Your task to perform on an android device: turn off data saver in the chrome app Image 0: 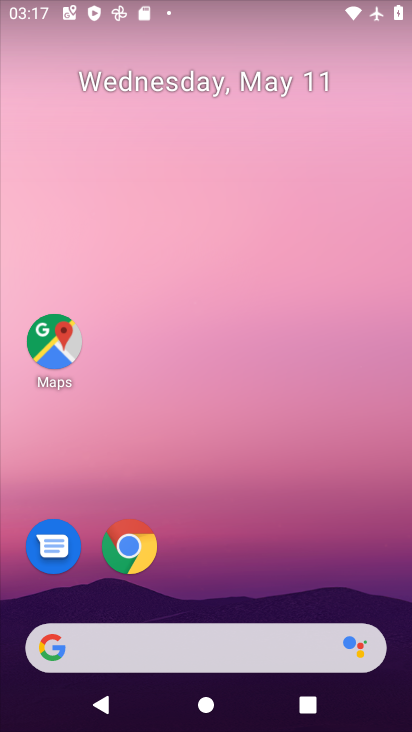
Step 0: drag from (164, 564) to (224, 116)
Your task to perform on an android device: turn off data saver in the chrome app Image 1: 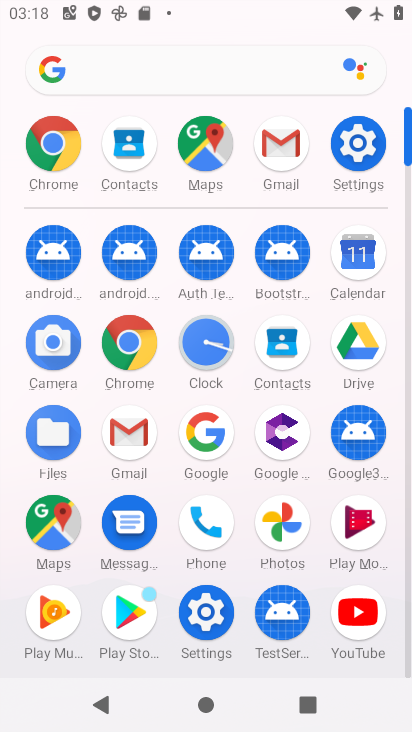
Step 1: click (125, 343)
Your task to perform on an android device: turn off data saver in the chrome app Image 2: 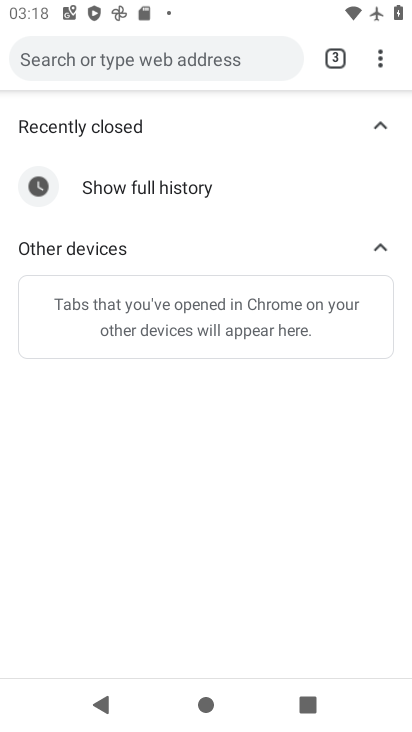
Step 2: click (308, 260)
Your task to perform on an android device: turn off data saver in the chrome app Image 3: 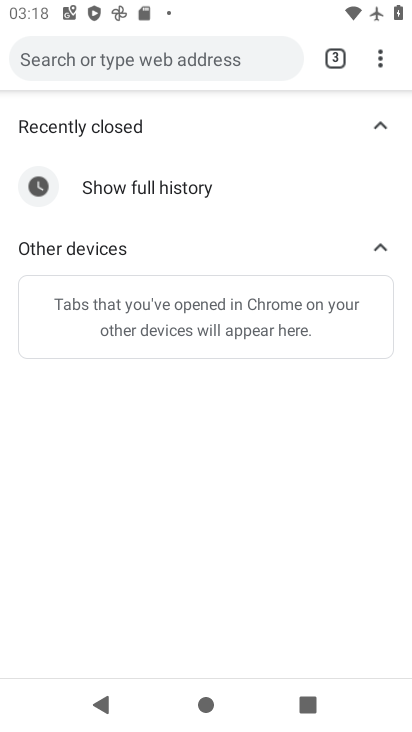
Step 3: drag from (386, 57) to (231, 503)
Your task to perform on an android device: turn off data saver in the chrome app Image 4: 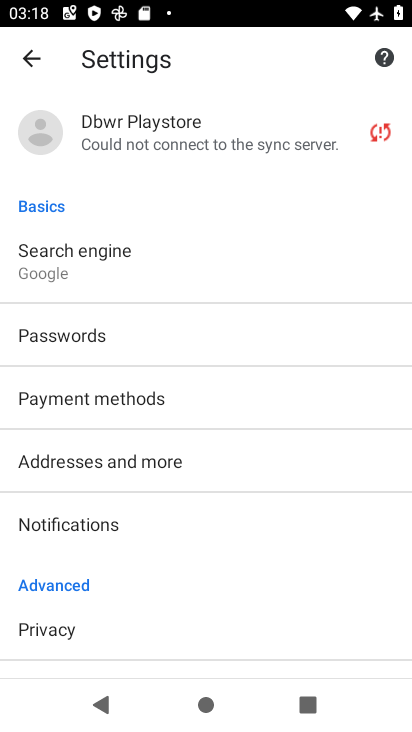
Step 4: drag from (197, 658) to (268, 365)
Your task to perform on an android device: turn off data saver in the chrome app Image 5: 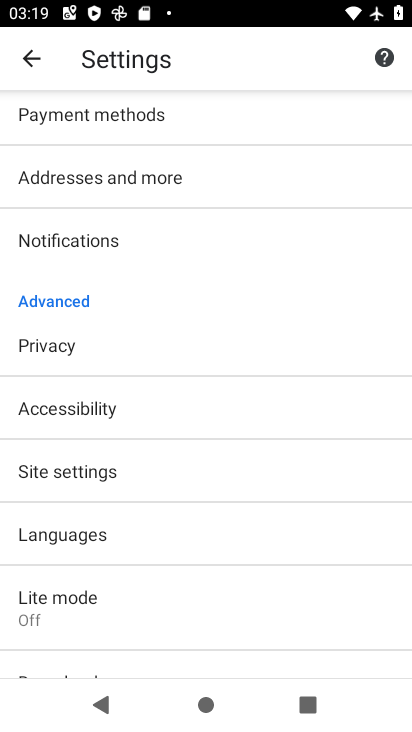
Step 5: drag from (155, 551) to (302, 239)
Your task to perform on an android device: turn off data saver in the chrome app Image 6: 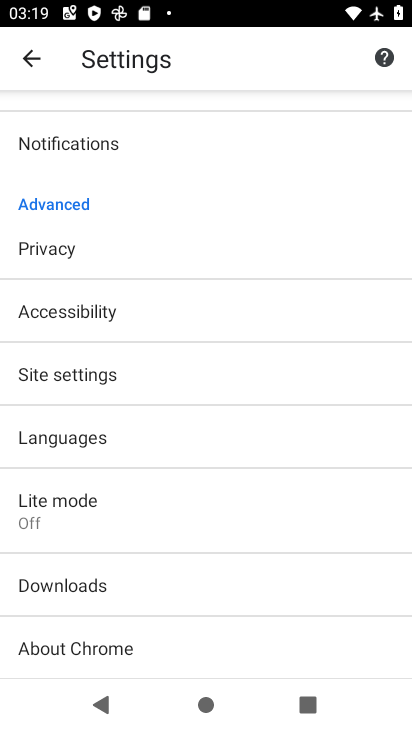
Step 6: click (169, 500)
Your task to perform on an android device: turn off data saver in the chrome app Image 7: 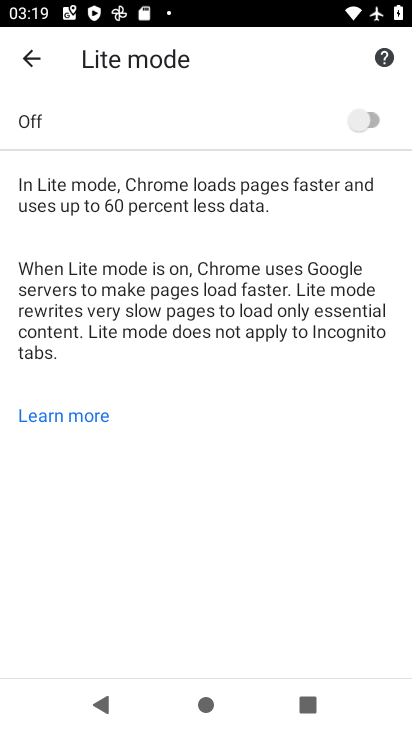
Step 7: task complete